Your task to perform on an android device: Open Google Chrome and click the shortcut for Amazon.com Image 0: 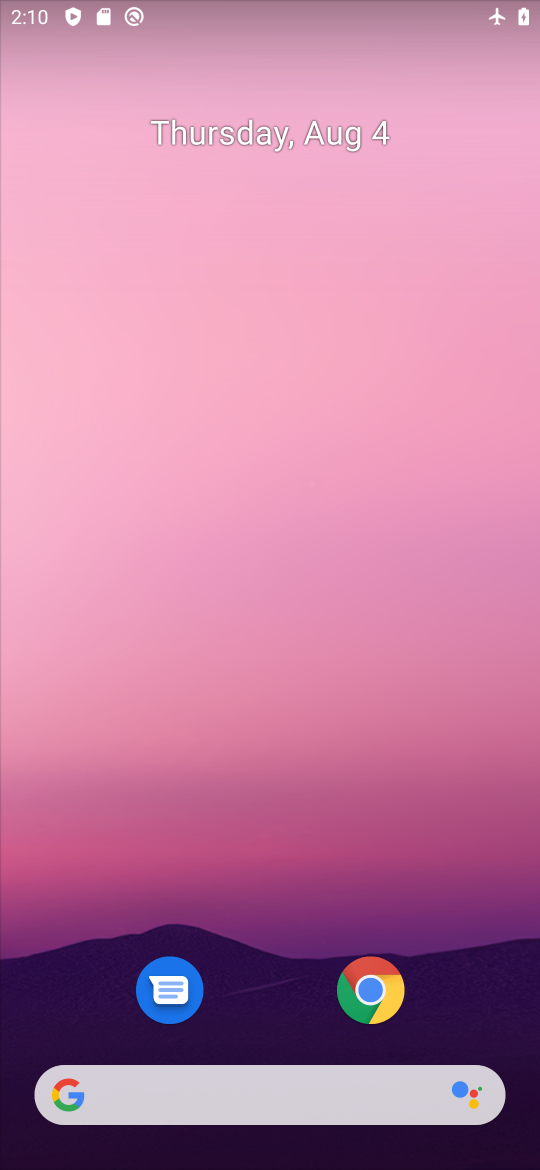
Step 0: click (369, 984)
Your task to perform on an android device: Open Google Chrome and click the shortcut for Amazon.com Image 1: 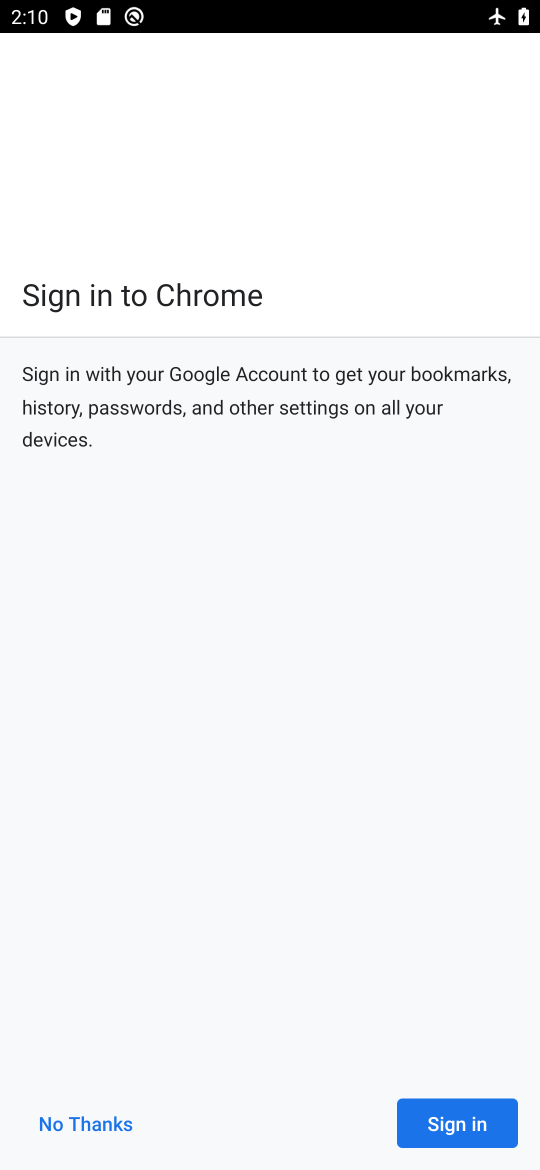
Step 1: click (78, 1144)
Your task to perform on an android device: Open Google Chrome and click the shortcut for Amazon.com Image 2: 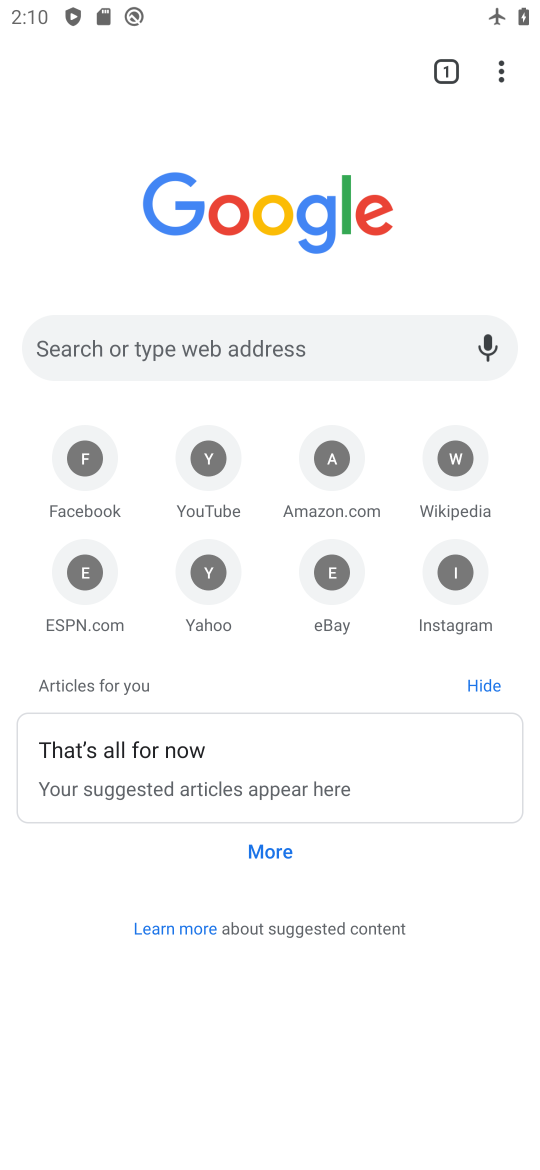
Step 2: click (342, 440)
Your task to perform on an android device: Open Google Chrome and click the shortcut for Amazon.com Image 3: 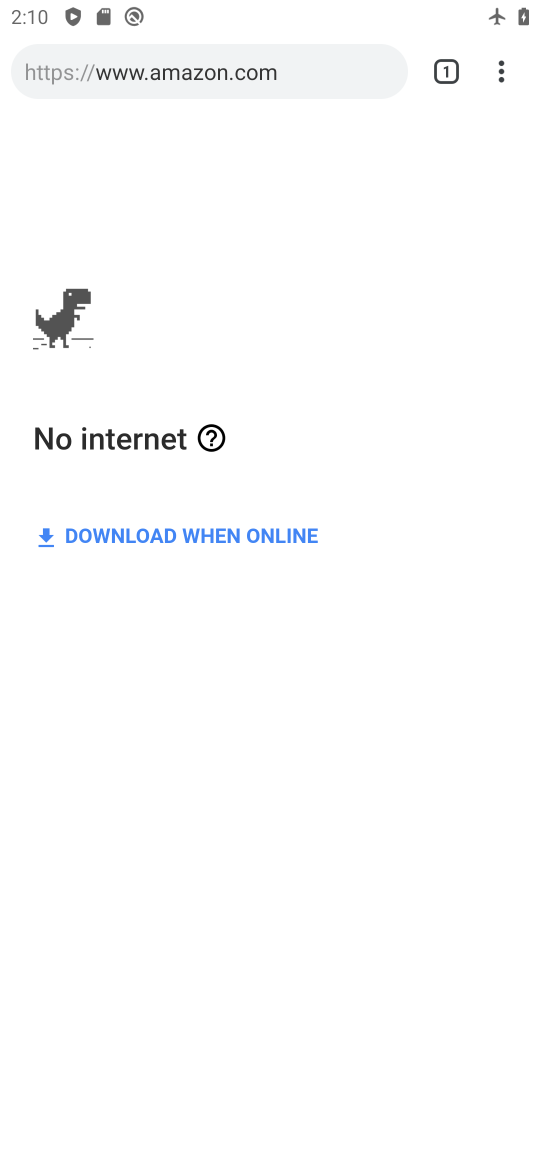
Step 3: task complete